Your task to perform on an android device: Turn on the flashlight Image 0: 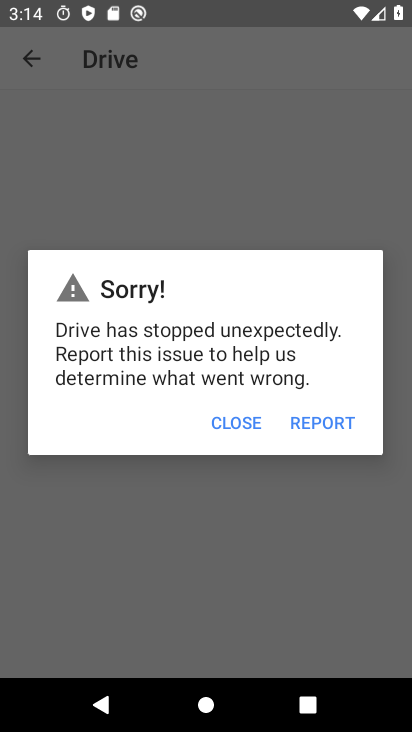
Step 0: press home button
Your task to perform on an android device: Turn on the flashlight Image 1: 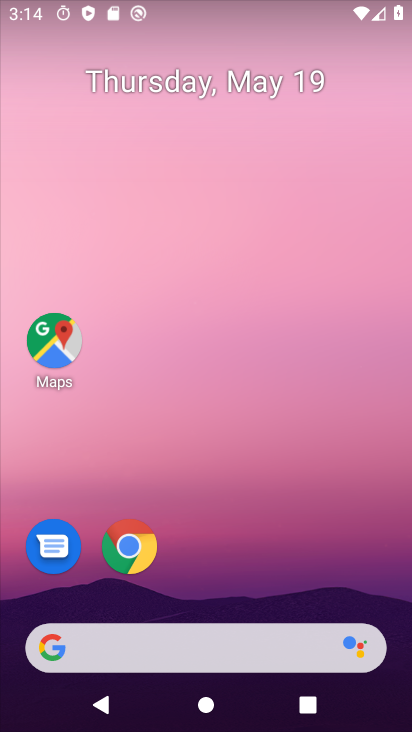
Step 1: drag from (212, 590) to (212, 89)
Your task to perform on an android device: Turn on the flashlight Image 2: 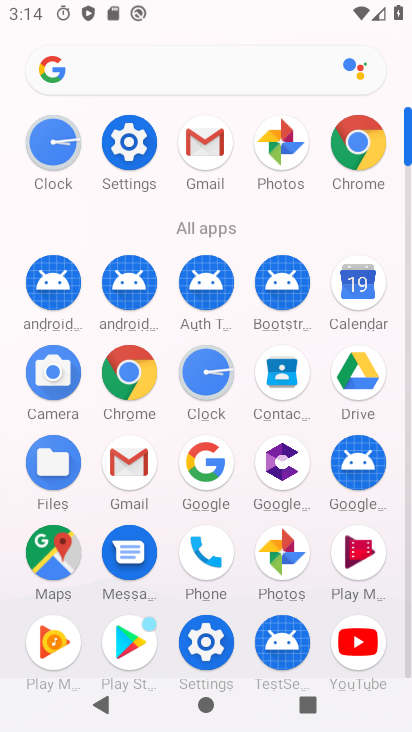
Step 2: click (124, 136)
Your task to perform on an android device: Turn on the flashlight Image 3: 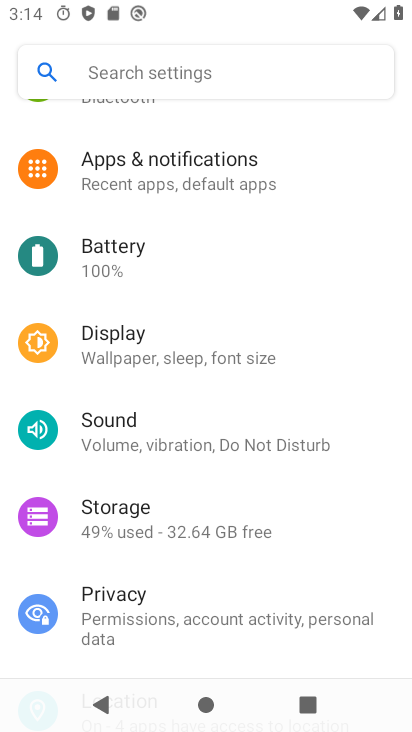
Step 3: click (146, 68)
Your task to perform on an android device: Turn on the flashlight Image 4: 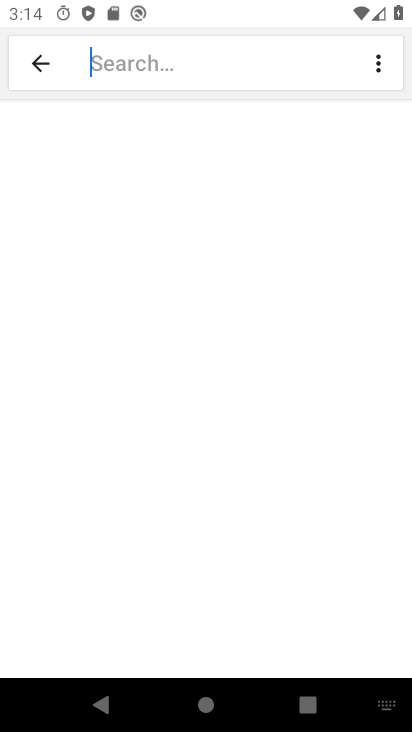
Step 4: type "flashlight"
Your task to perform on an android device: Turn on the flashlight Image 5: 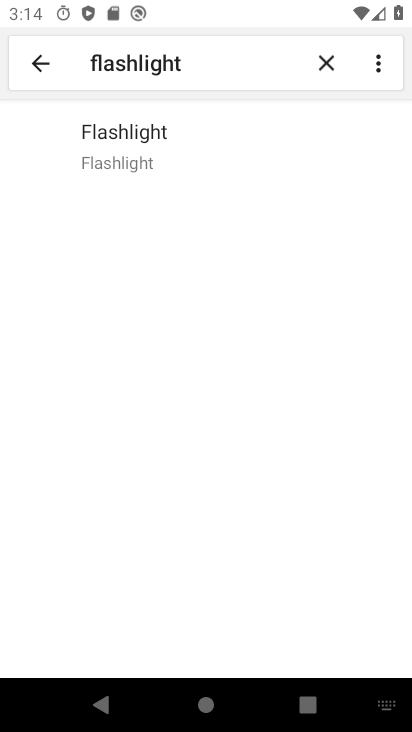
Step 5: click (186, 138)
Your task to perform on an android device: Turn on the flashlight Image 6: 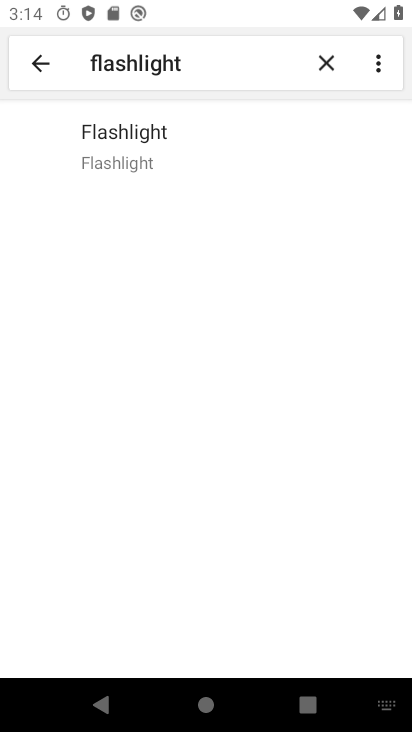
Step 6: click (168, 145)
Your task to perform on an android device: Turn on the flashlight Image 7: 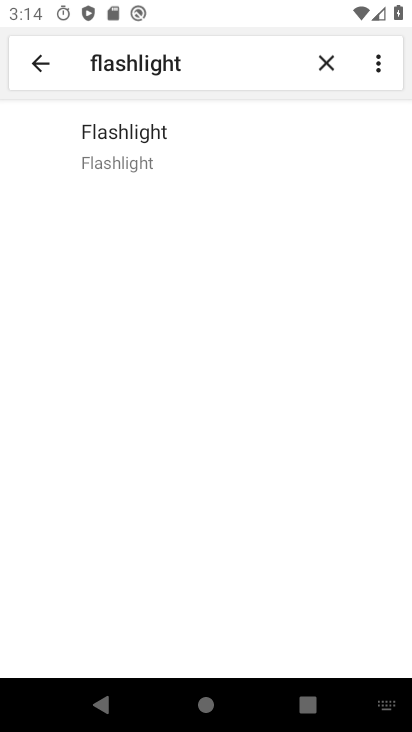
Step 7: click (162, 148)
Your task to perform on an android device: Turn on the flashlight Image 8: 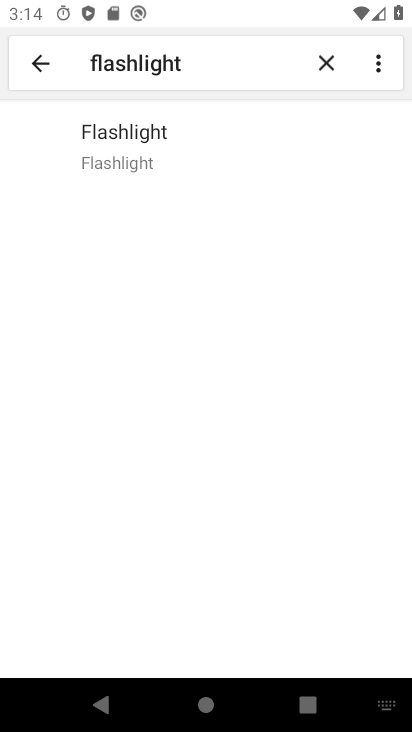
Step 8: click (160, 150)
Your task to perform on an android device: Turn on the flashlight Image 9: 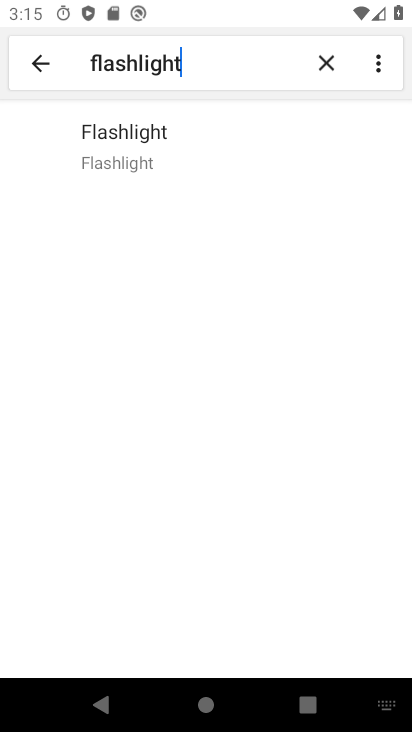
Step 9: task complete